Your task to perform on an android device: Show me popular videos on Youtube Image 0: 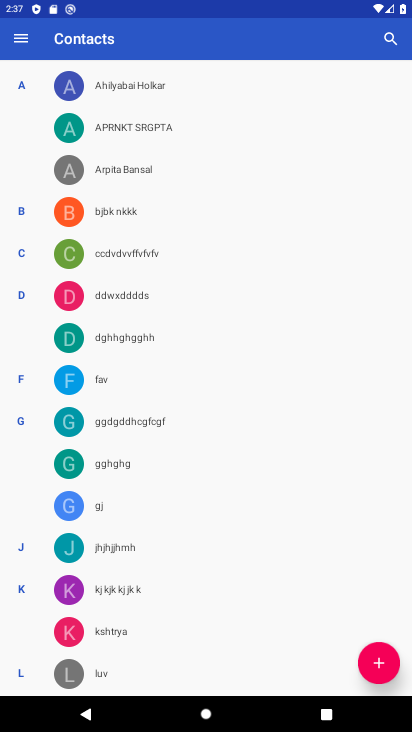
Step 0: press home button
Your task to perform on an android device: Show me popular videos on Youtube Image 1: 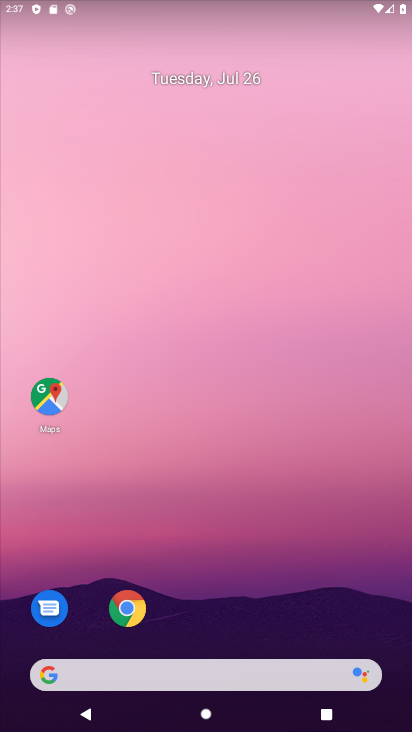
Step 1: drag from (237, 541) to (238, 15)
Your task to perform on an android device: Show me popular videos on Youtube Image 2: 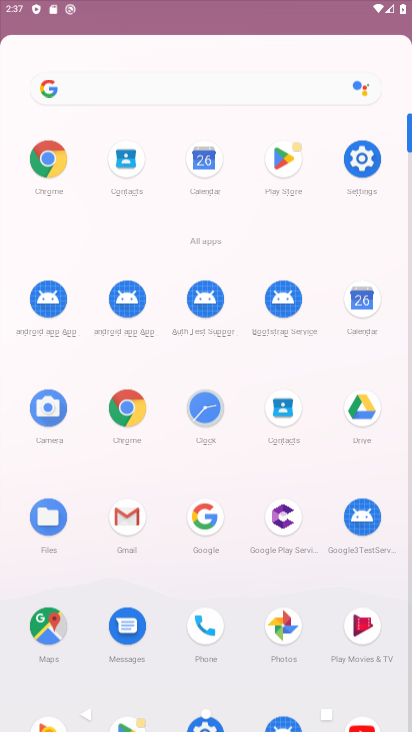
Step 2: drag from (262, 305) to (276, 82)
Your task to perform on an android device: Show me popular videos on Youtube Image 3: 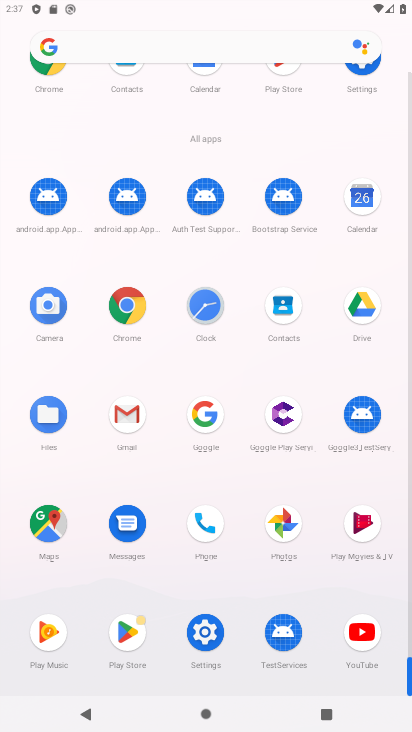
Step 3: click (369, 645)
Your task to perform on an android device: Show me popular videos on Youtube Image 4: 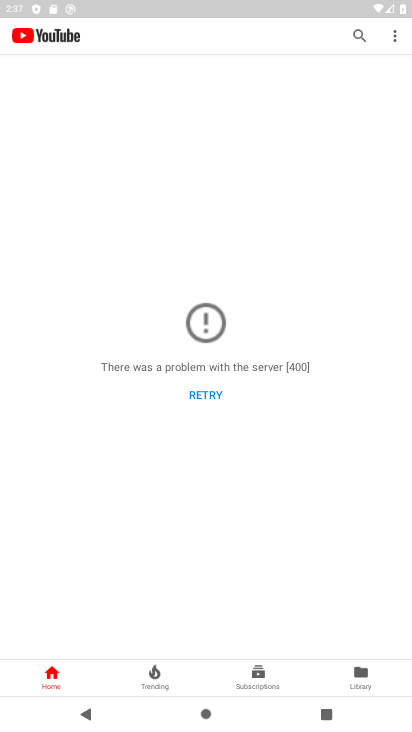
Step 4: click (198, 391)
Your task to perform on an android device: Show me popular videos on Youtube Image 5: 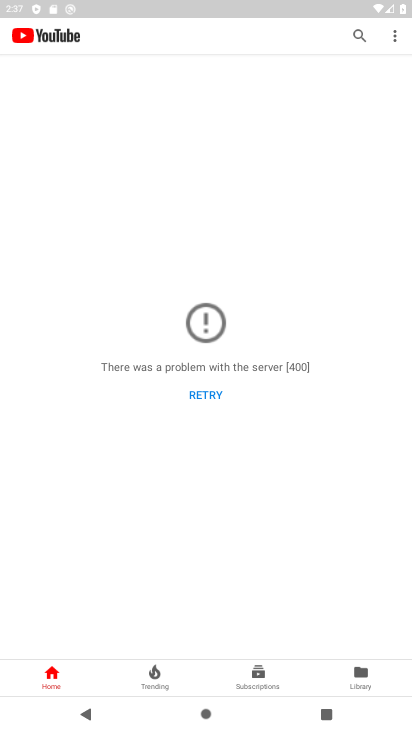
Step 5: click (197, 390)
Your task to perform on an android device: Show me popular videos on Youtube Image 6: 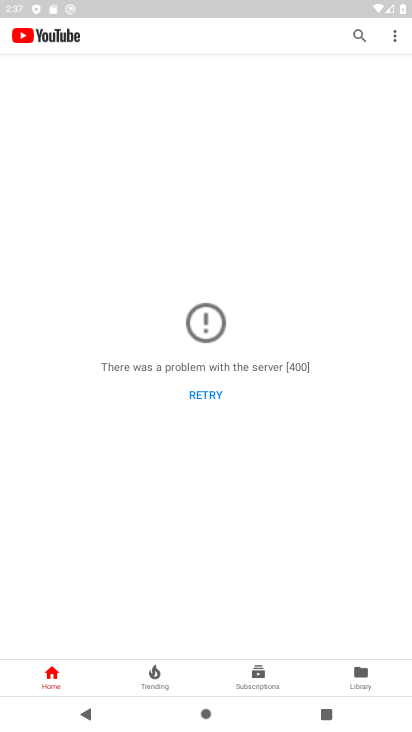
Step 6: task complete